Your task to perform on an android device: What's the news in Pakistan? Image 0: 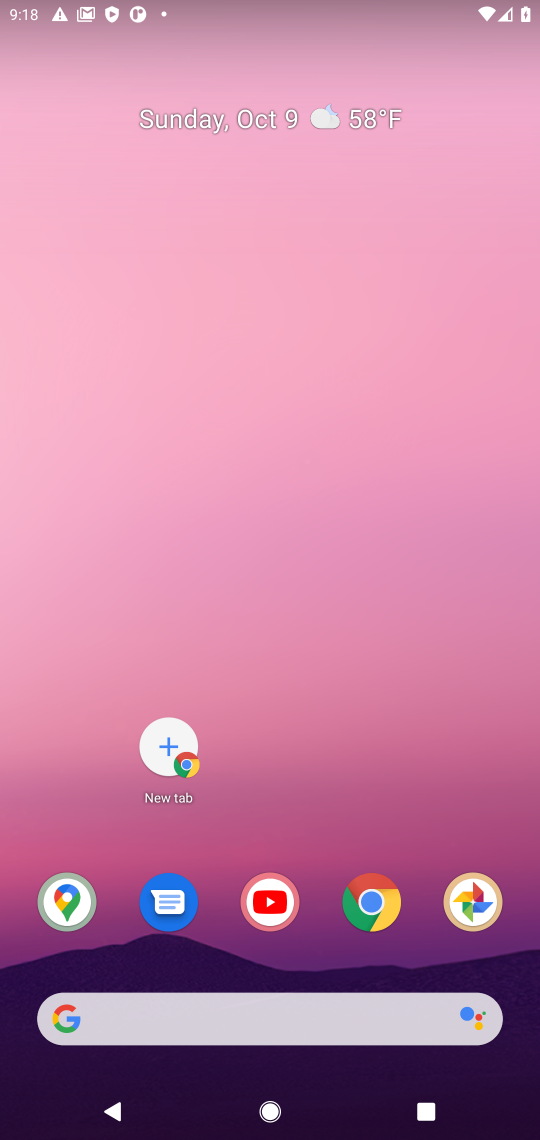
Step 0: click (377, 900)
Your task to perform on an android device: What's the news in Pakistan? Image 1: 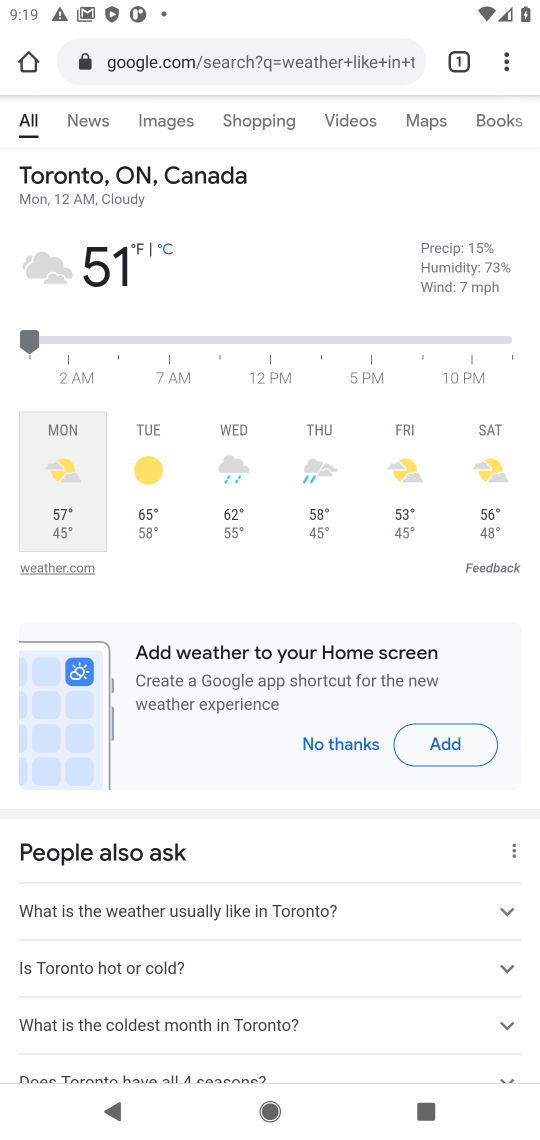
Step 1: click (134, 54)
Your task to perform on an android device: What's the news in Pakistan? Image 2: 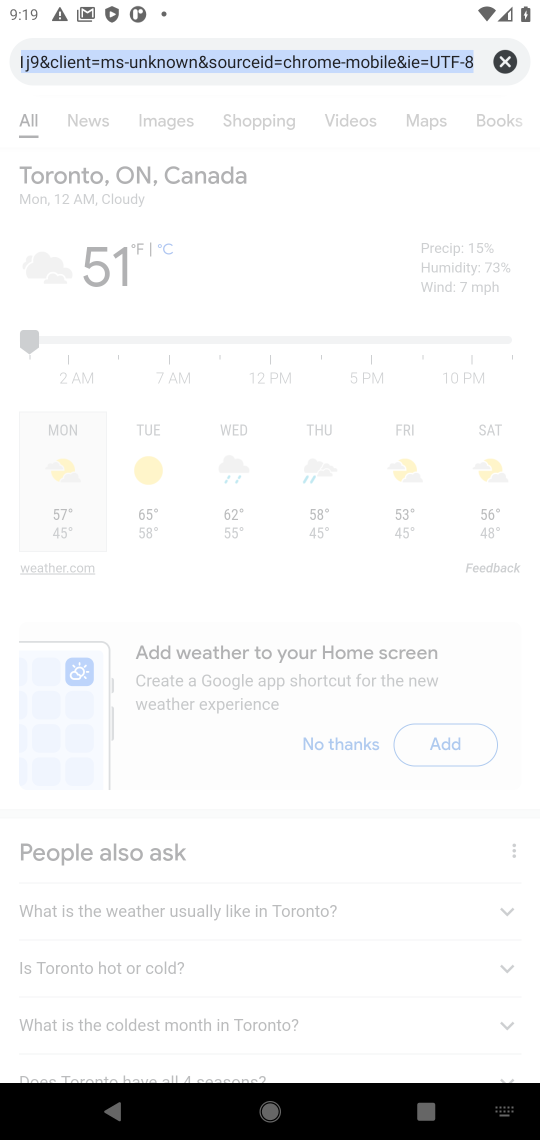
Step 2: type "Pakistan"
Your task to perform on an android device: What's the news in Pakistan? Image 3: 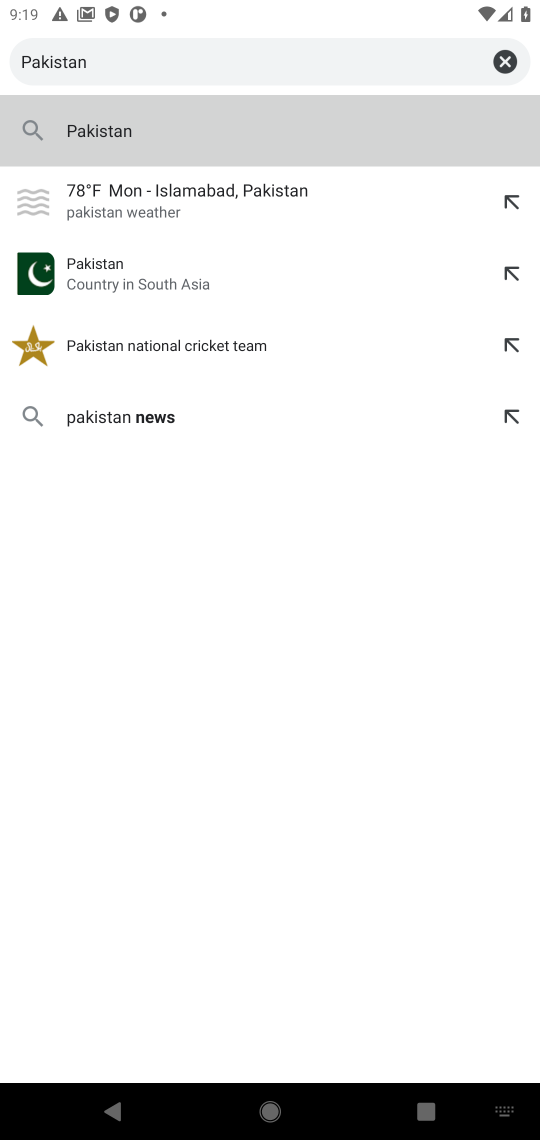
Step 3: click (324, 146)
Your task to perform on an android device: What's the news in Pakistan? Image 4: 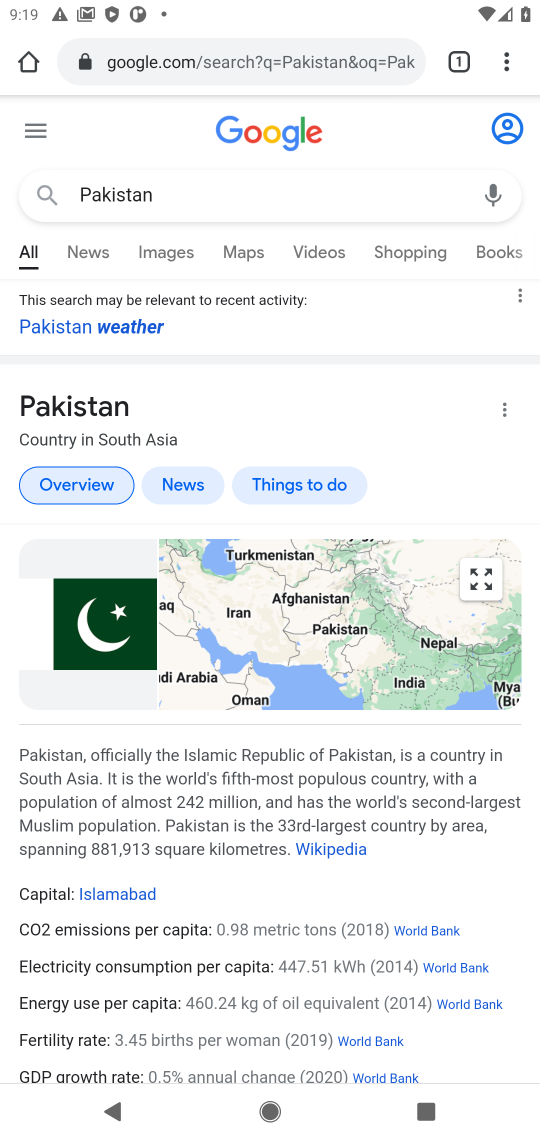
Step 4: click (95, 253)
Your task to perform on an android device: What's the news in Pakistan? Image 5: 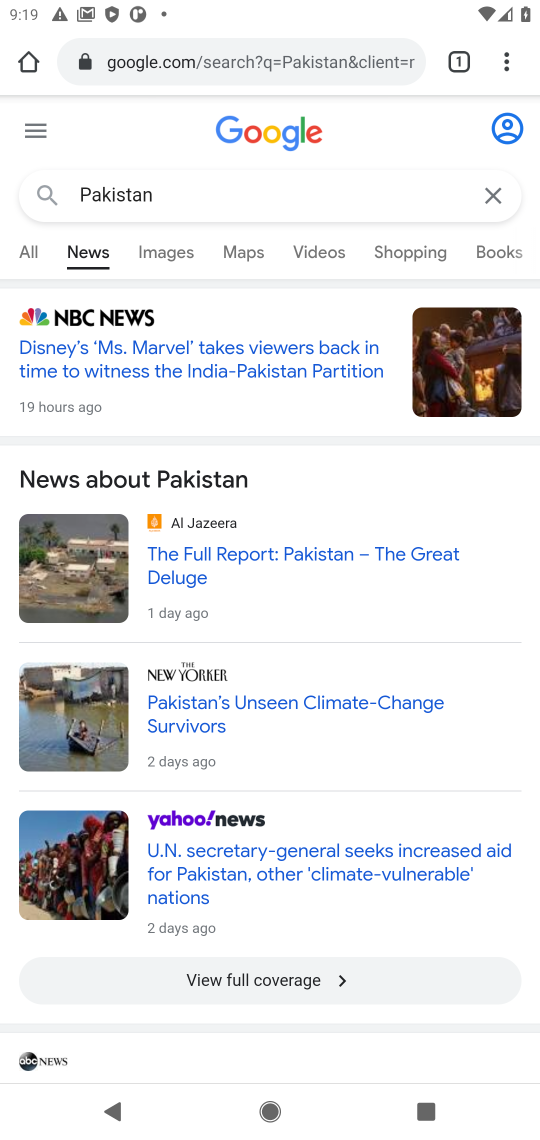
Step 5: task complete